Your task to perform on an android device: Open network settings Image 0: 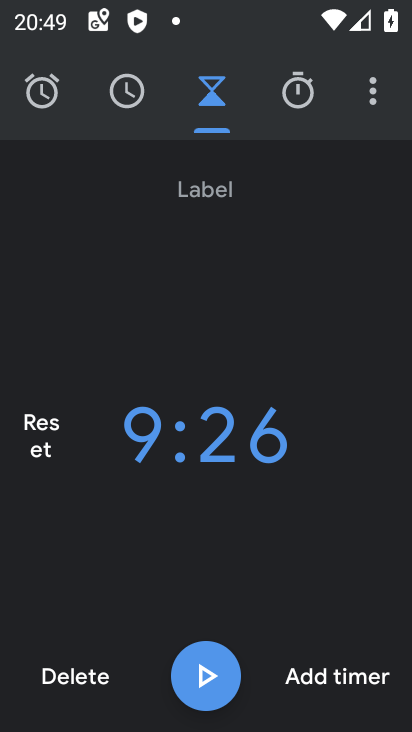
Step 0: press home button
Your task to perform on an android device: Open network settings Image 1: 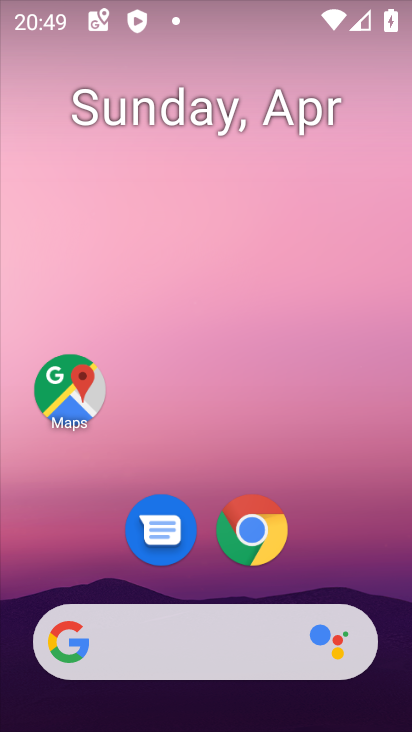
Step 1: drag from (215, 422) to (284, 48)
Your task to perform on an android device: Open network settings Image 2: 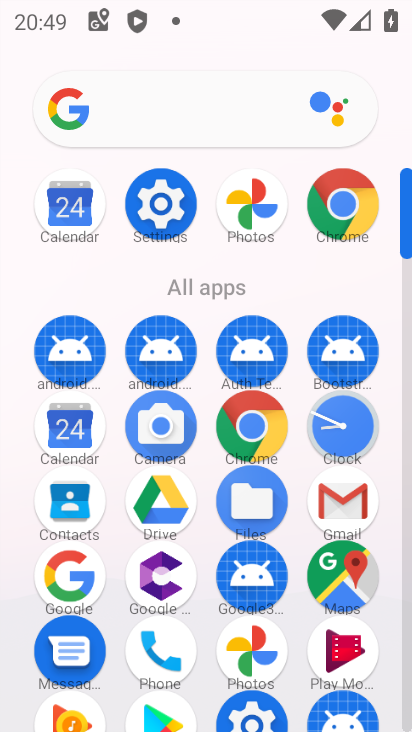
Step 2: click (145, 201)
Your task to perform on an android device: Open network settings Image 3: 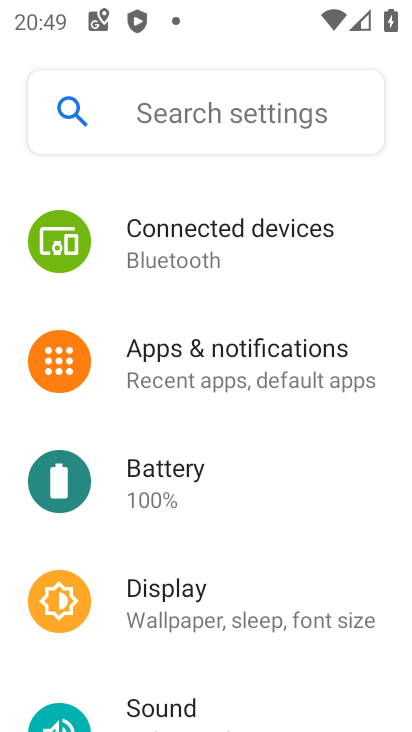
Step 3: drag from (206, 219) to (206, 628)
Your task to perform on an android device: Open network settings Image 4: 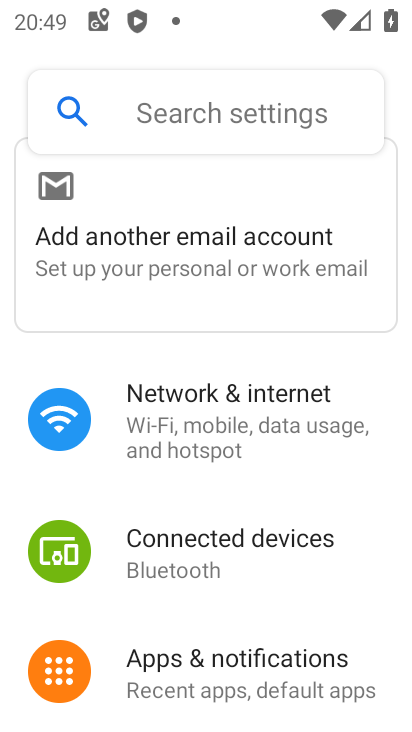
Step 4: click (213, 446)
Your task to perform on an android device: Open network settings Image 5: 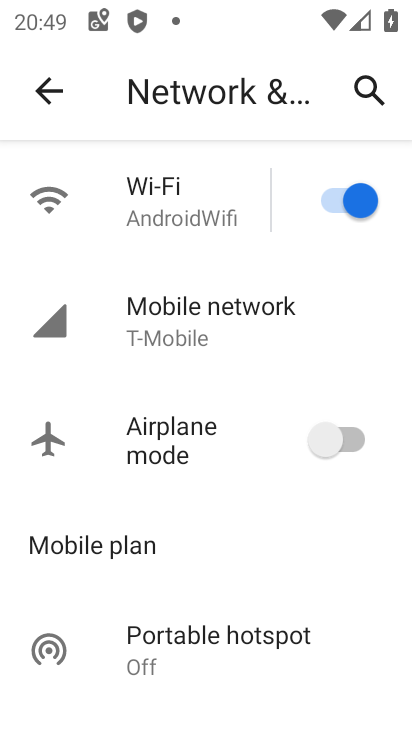
Step 5: click (201, 317)
Your task to perform on an android device: Open network settings Image 6: 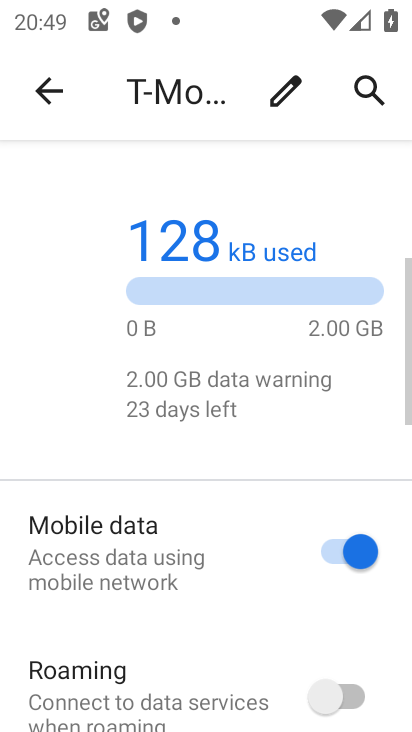
Step 6: task complete